Your task to perform on an android device: open a new tab in the chrome app Image 0: 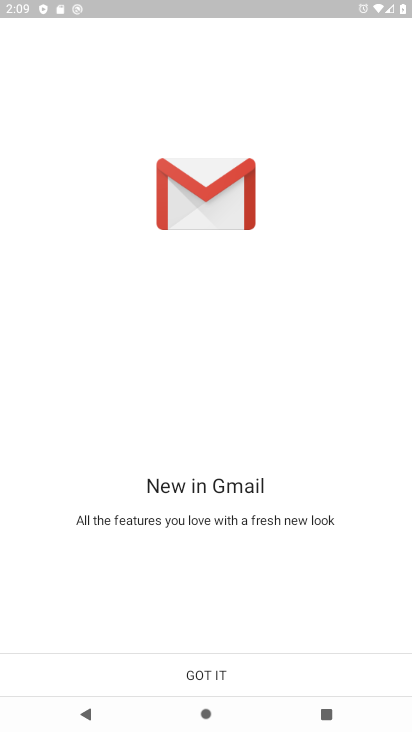
Step 0: press home button
Your task to perform on an android device: open a new tab in the chrome app Image 1: 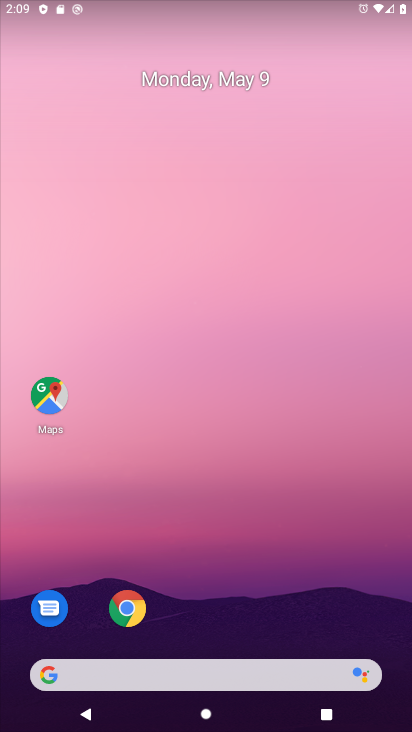
Step 1: click (136, 605)
Your task to perform on an android device: open a new tab in the chrome app Image 2: 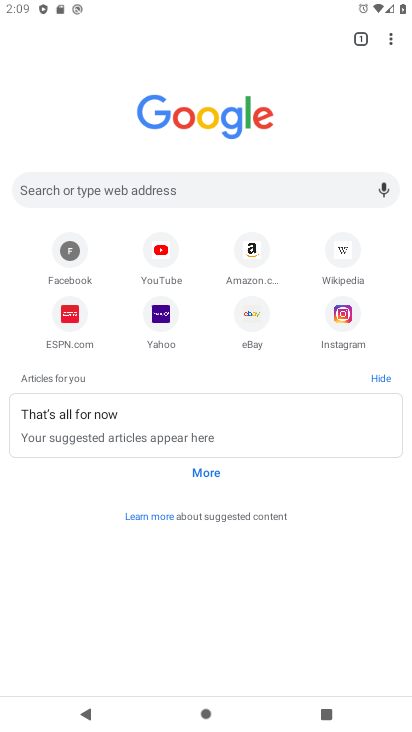
Step 2: click (351, 36)
Your task to perform on an android device: open a new tab in the chrome app Image 3: 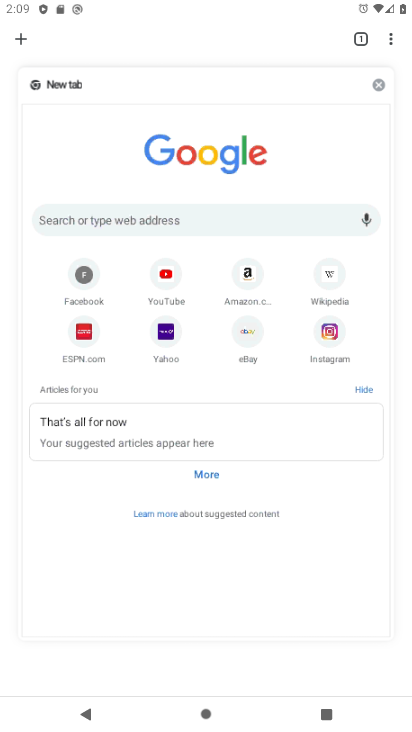
Step 3: click (40, 53)
Your task to perform on an android device: open a new tab in the chrome app Image 4: 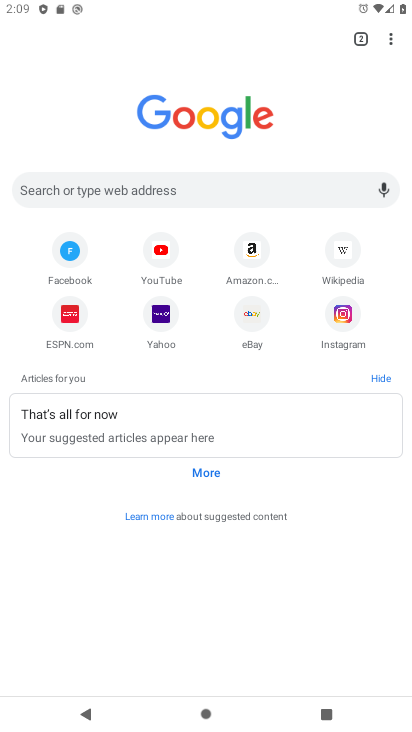
Step 4: task complete